Your task to perform on an android device: Check the news Image 0: 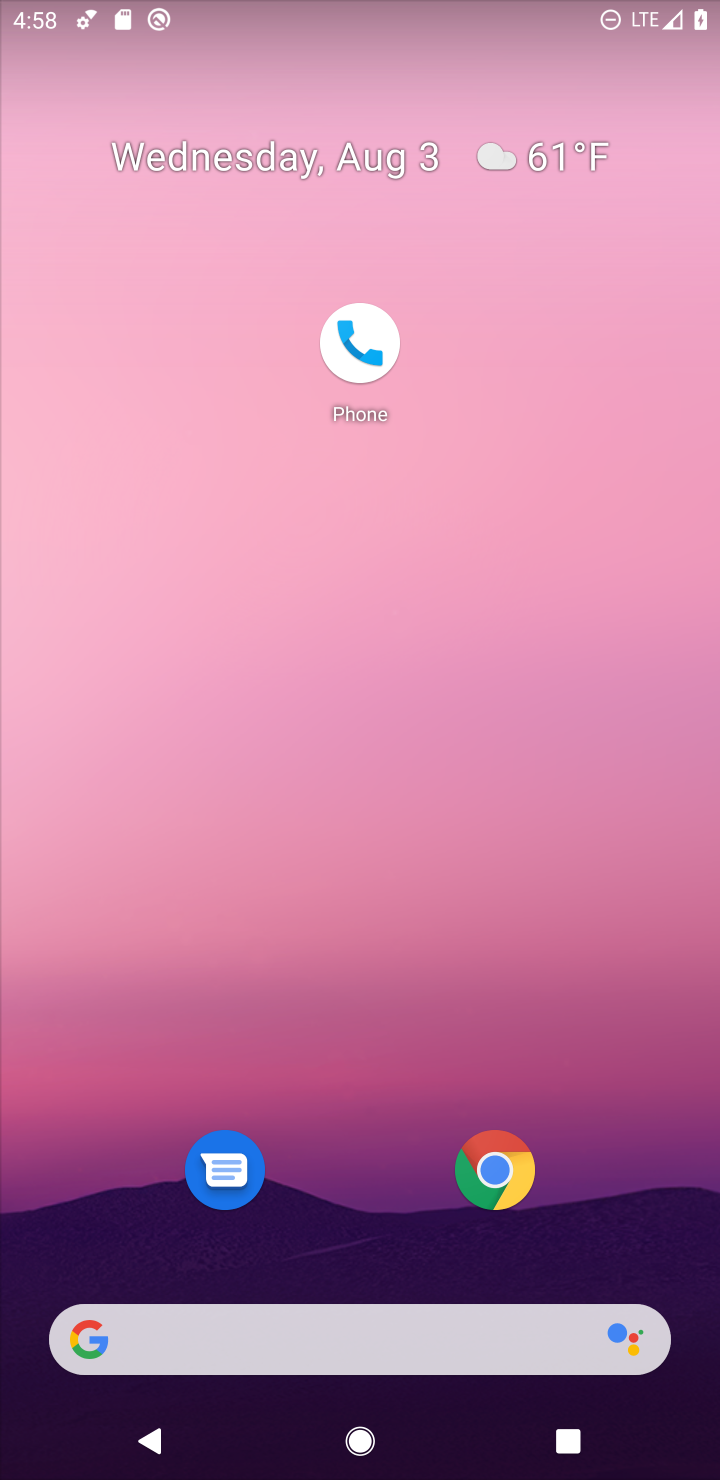
Step 0: click (345, 1356)
Your task to perform on an android device: Check the news Image 1: 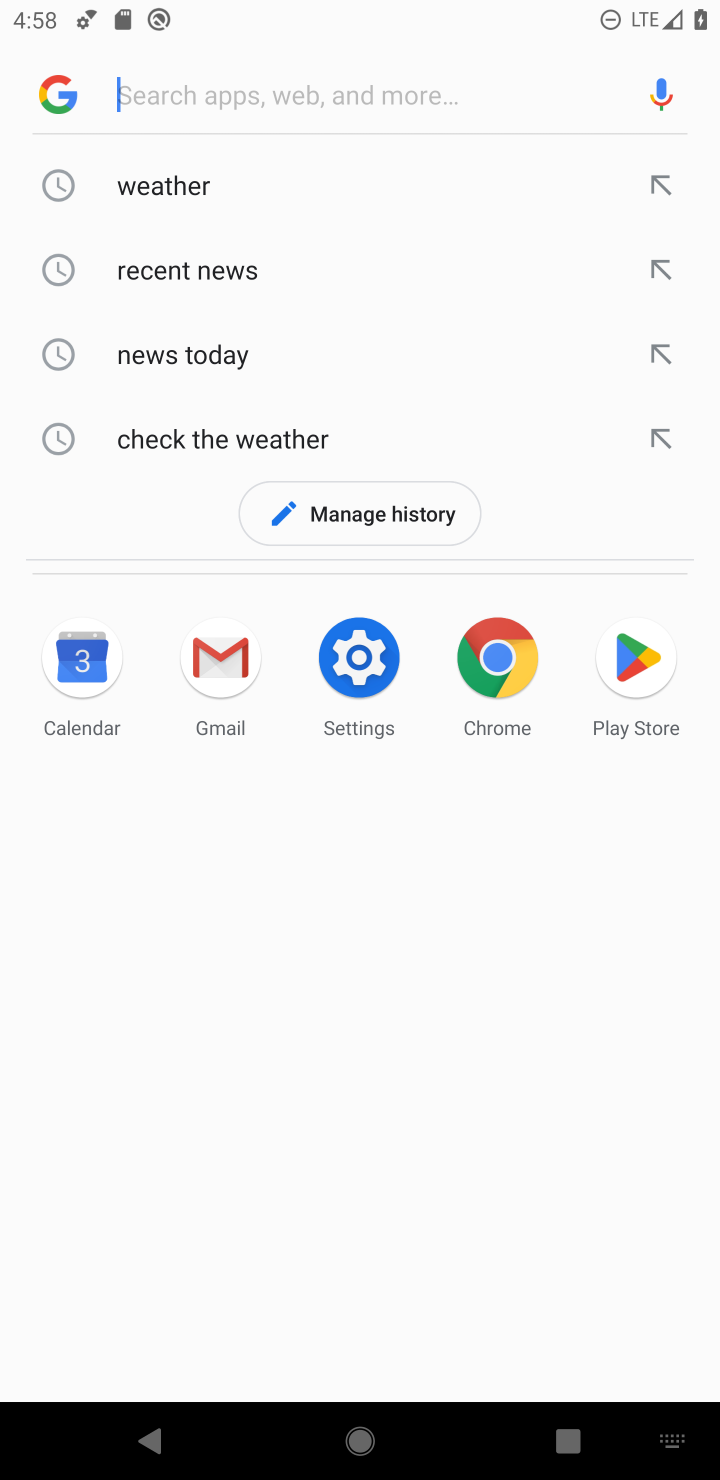
Step 1: type "news"
Your task to perform on an android device: Check the news Image 2: 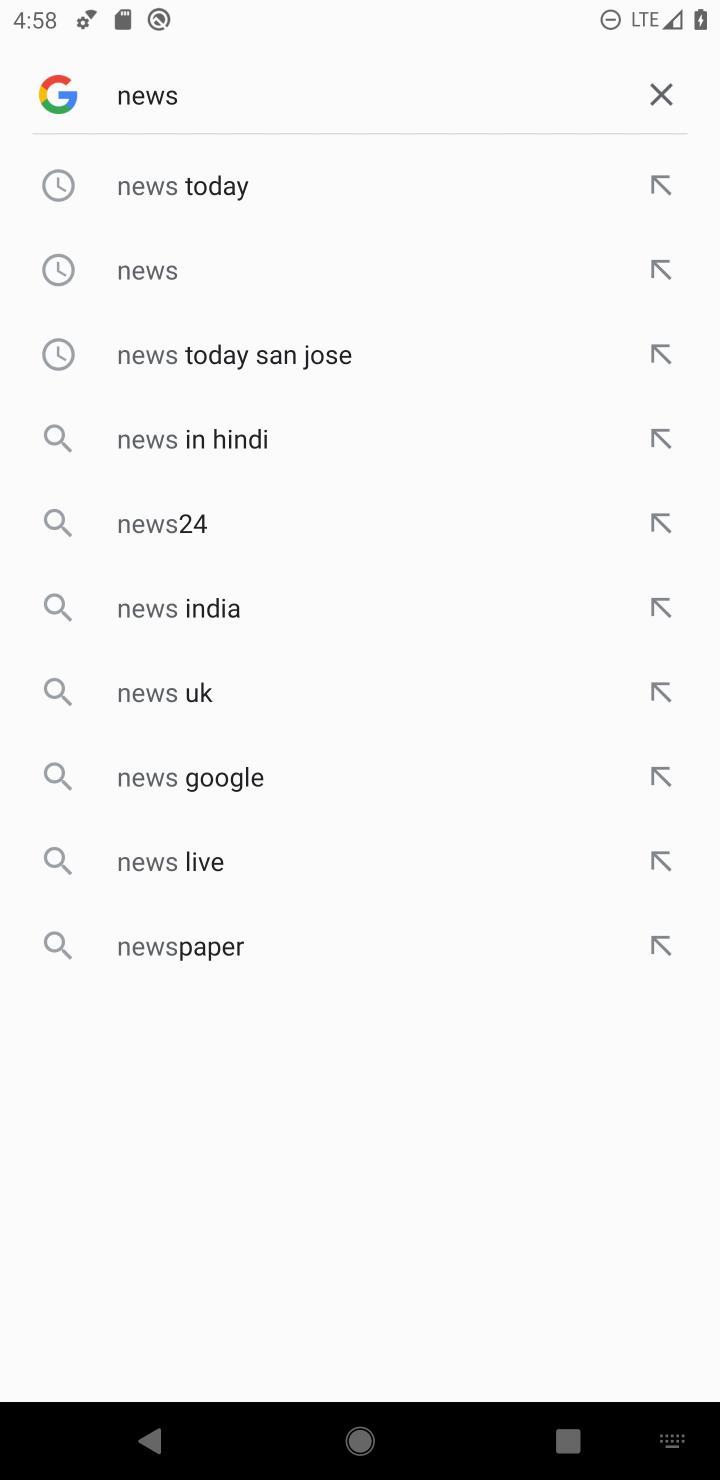
Step 2: click (154, 285)
Your task to perform on an android device: Check the news Image 3: 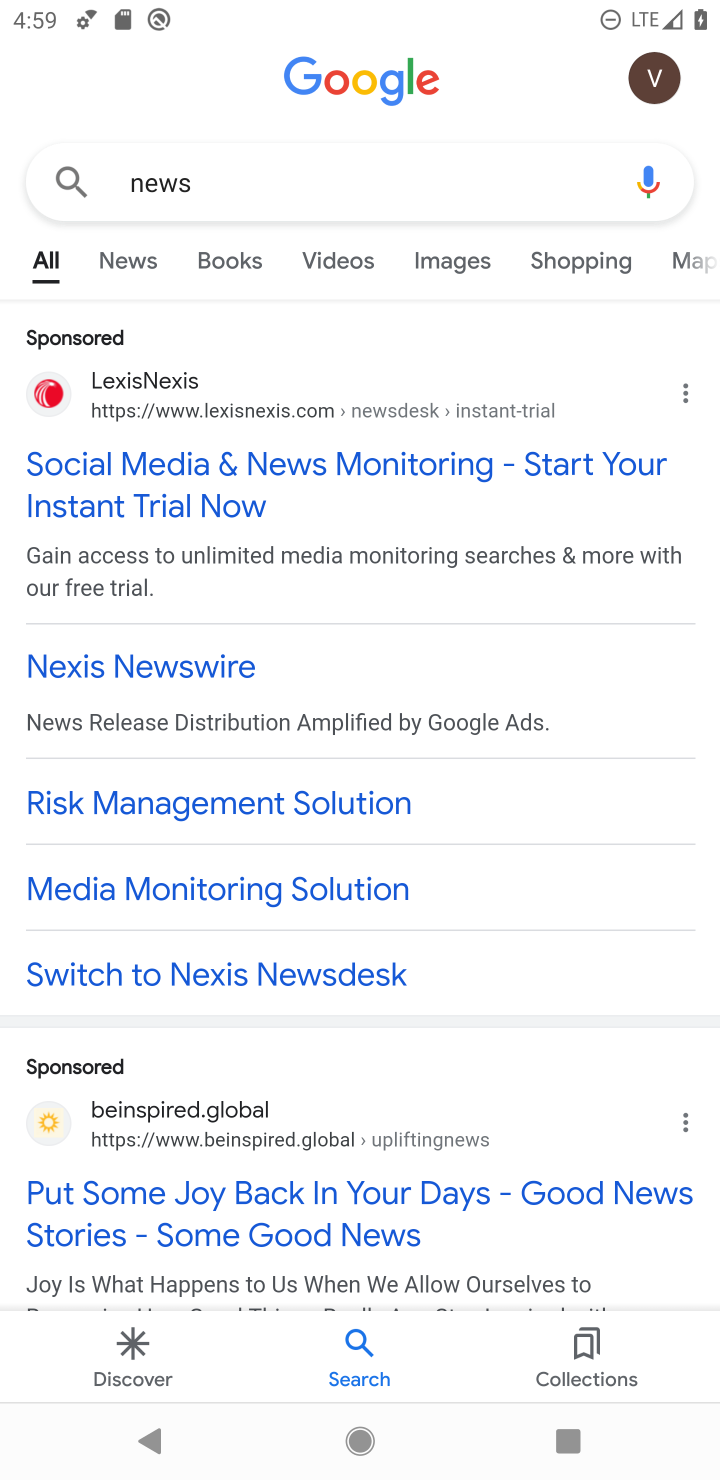
Step 3: click (133, 245)
Your task to perform on an android device: Check the news Image 4: 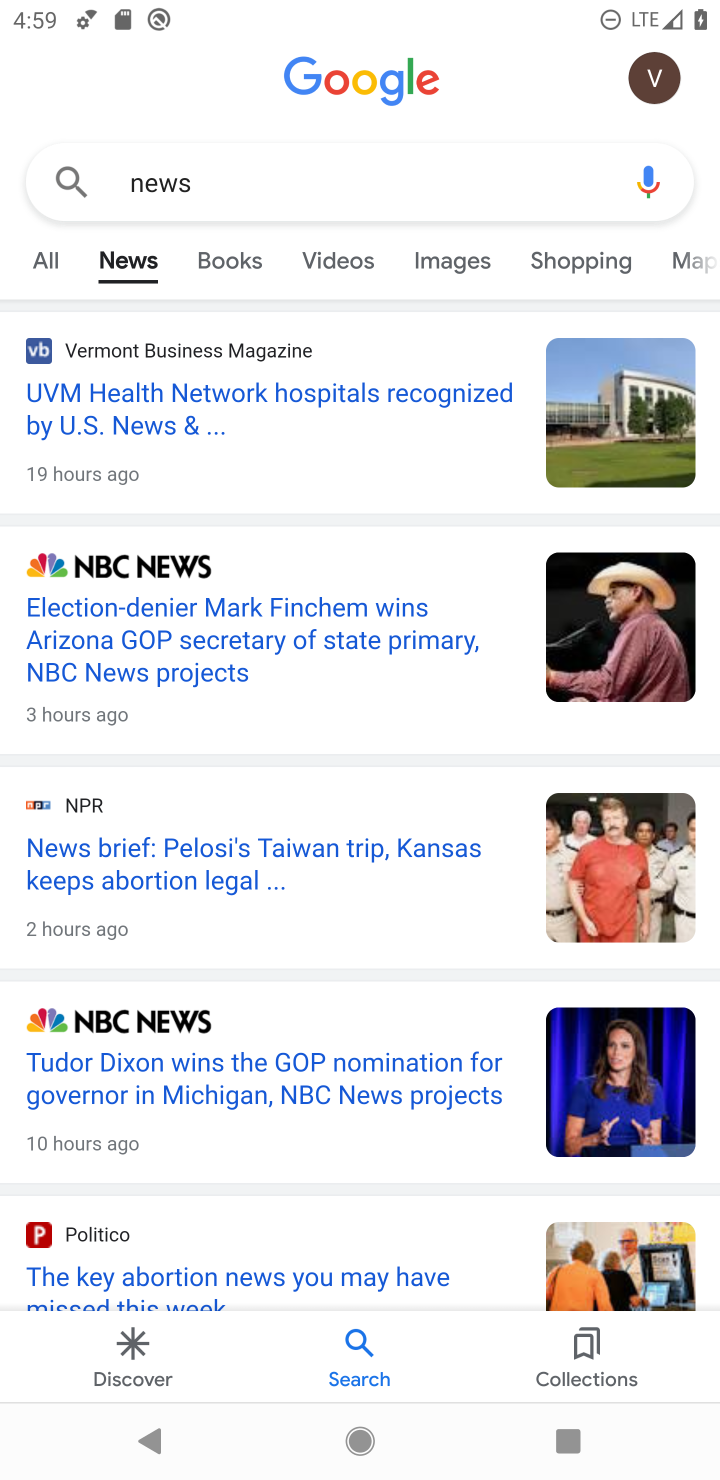
Step 4: task complete